Your task to perform on an android device: remove spam from my inbox in the gmail app Image 0: 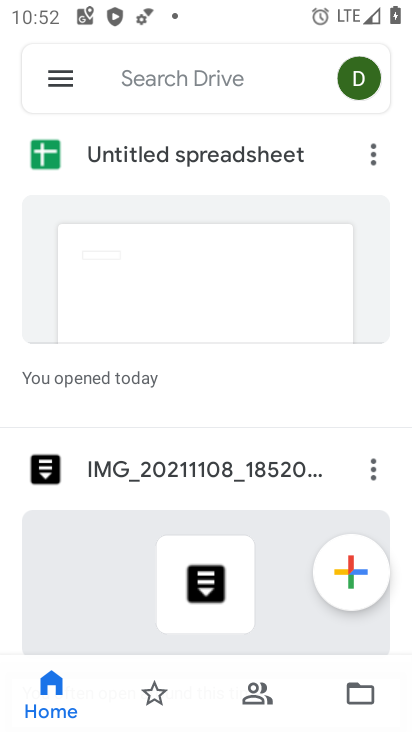
Step 0: press home button
Your task to perform on an android device: remove spam from my inbox in the gmail app Image 1: 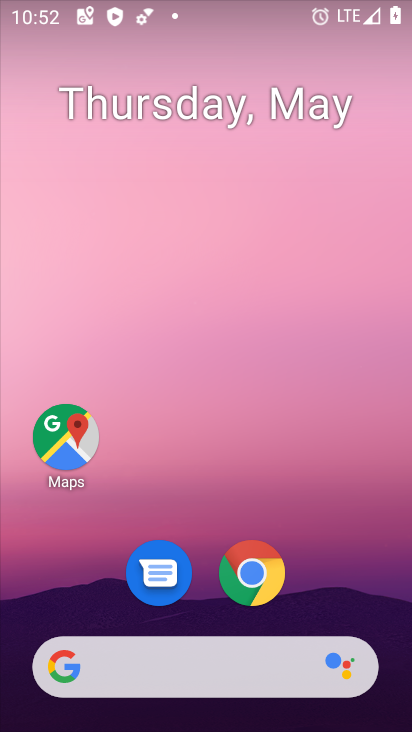
Step 1: drag from (193, 597) to (195, 155)
Your task to perform on an android device: remove spam from my inbox in the gmail app Image 2: 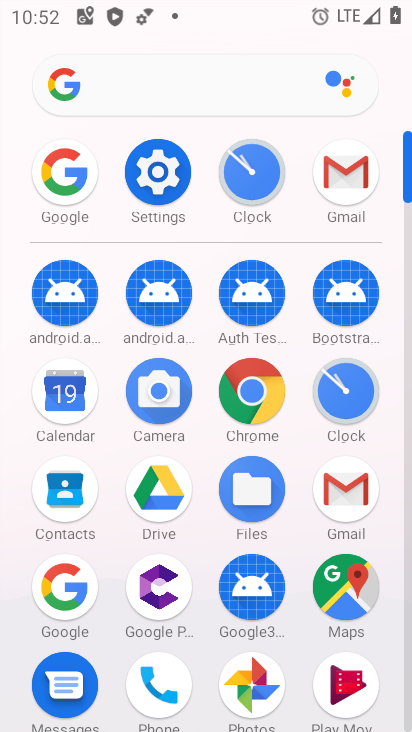
Step 2: click (351, 176)
Your task to perform on an android device: remove spam from my inbox in the gmail app Image 3: 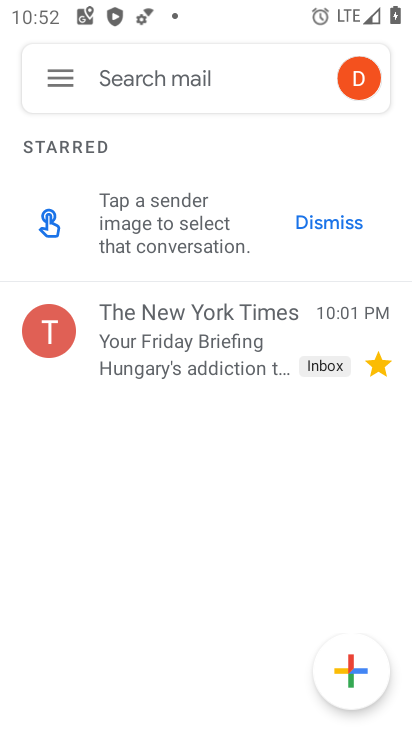
Step 3: click (64, 69)
Your task to perform on an android device: remove spam from my inbox in the gmail app Image 4: 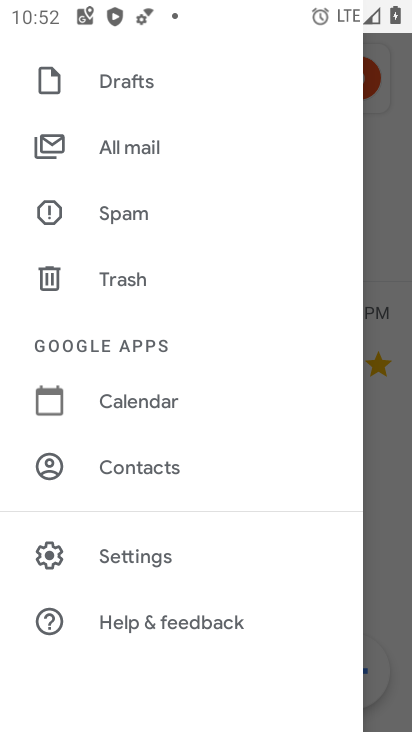
Step 4: drag from (139, 298) to (164, 591)
Your task to perform on an android device: remove spam from my inbox in the gmail app Image 5: 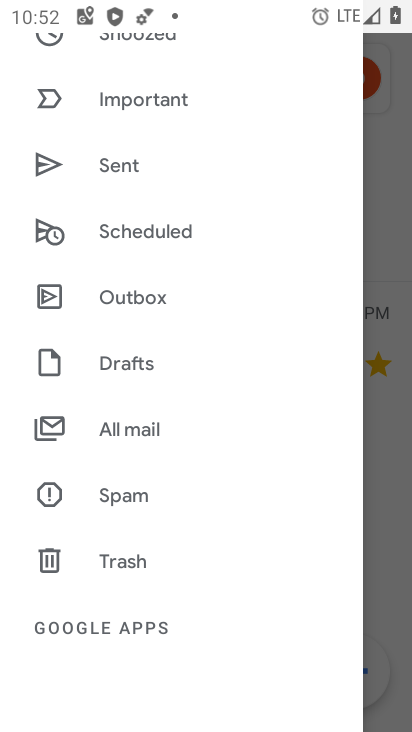
Step 5: drag from (140, 169) to (157, 318)
Your task to perform on an android device: remove spam from my inbox in the gmail app Image 6: 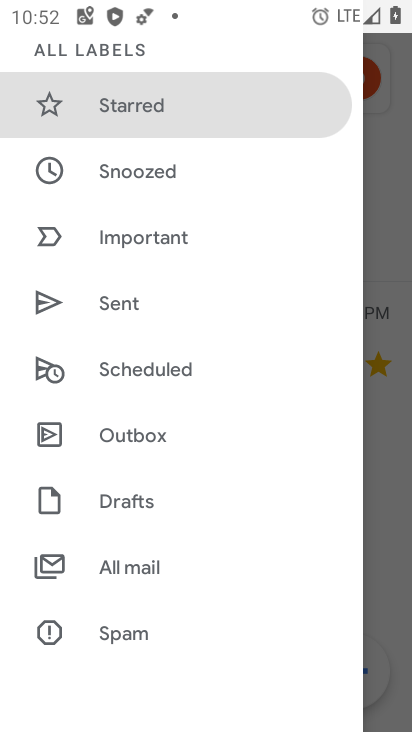
Step 6: click (147, 630)
Your task to perform on an android device: remove spam from my inbox in the gmail app Image 7: 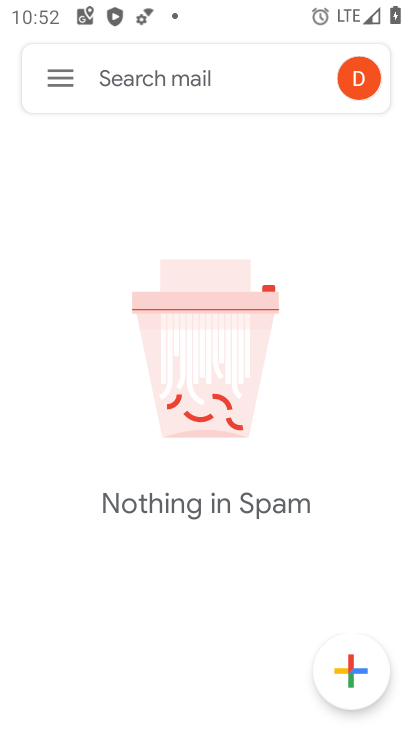
Step 7: task complete